Your task to perform on an android device: turn on location history Image 0: 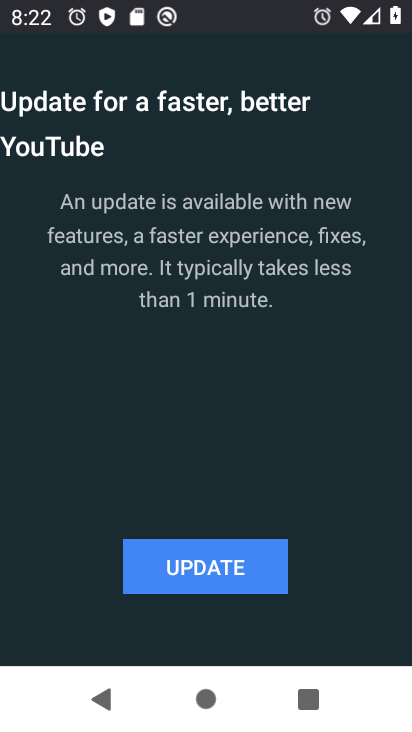
Step 0: press home button
Your task to perform on an android device: turn on location history Image 1: 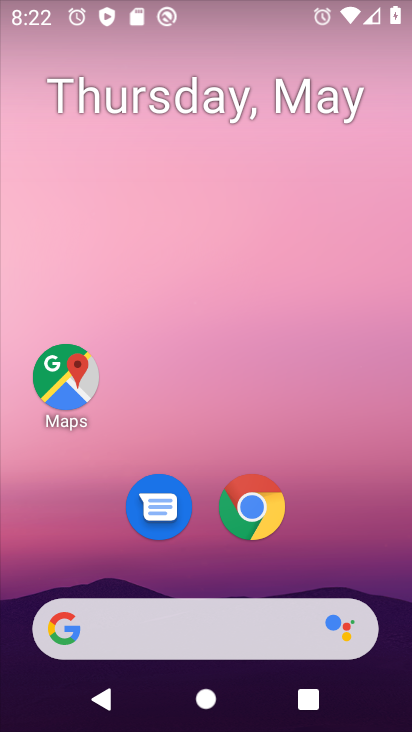
Step 1: drag from (191, 484) to (251, 2)
Your task to perform on an android device: turn on location history Image 2: 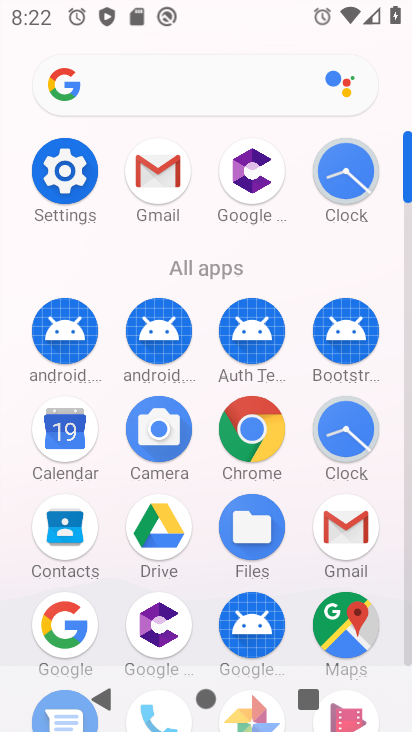
Step 2: click (69, 165)
Your task to perform on an android device: turn on location history Image 3: 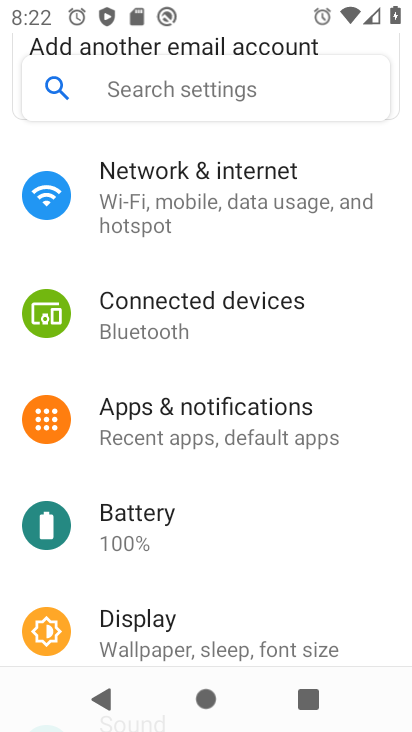
Step 3: drag from (208, 498) to (274, 96)
Your task to perform on an android device: turn on location history Image 4: 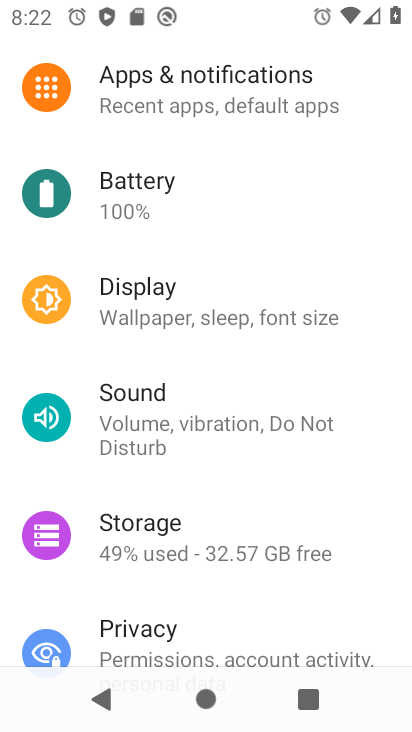
Step 4: drag from (216, 523) to (295, 116)
Your task to perform on an android device: turn on location history Image 5: 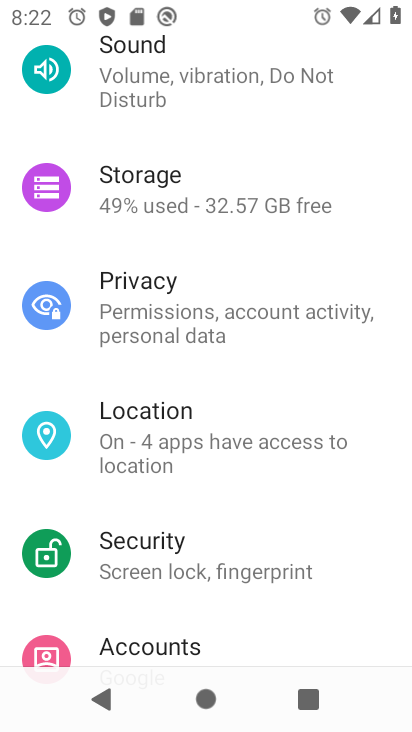
Step 5: click (197, 421)
Your task to perform on an android device: turn on location history Image 6: 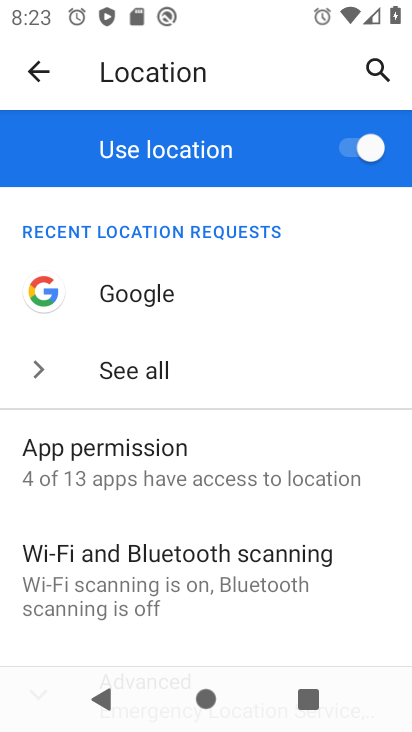
Step 6: task complete